Your task to perform on an android device: Search for sushi restaurants on Maps Image 0: 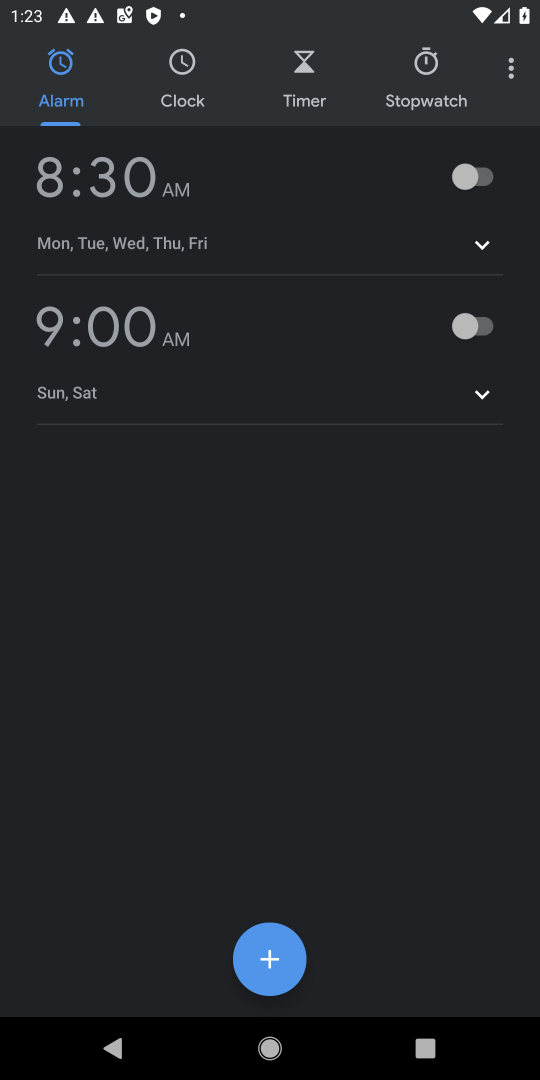
Step 0: press home button
Your task to perform on an android device: Search for sushi restaurants on Maps Image 1: 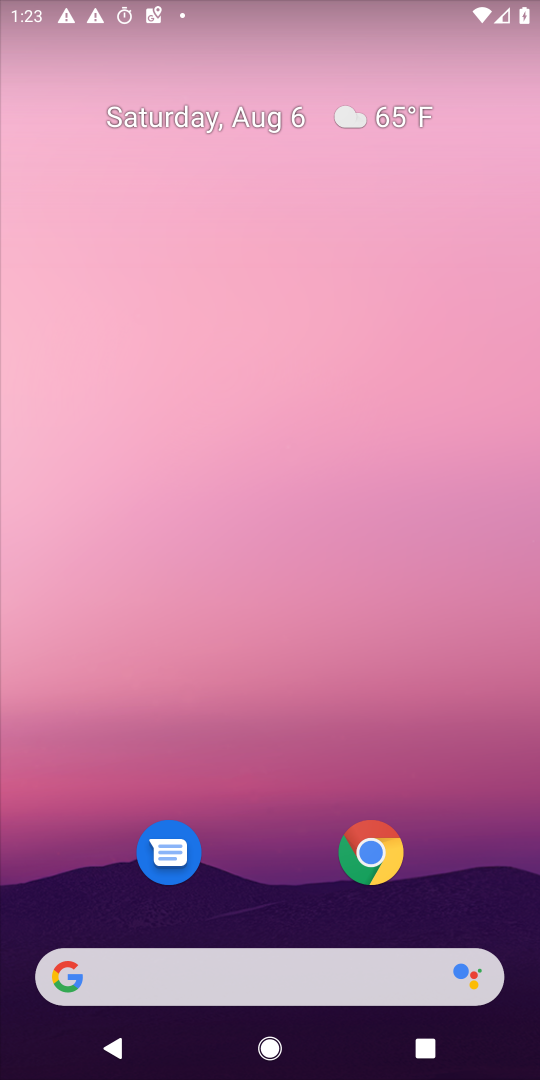
Step 1: drag from (337, 960) to (312, 235)
Your task to perform on an android device: Search for sushi restaurants on Maps Image 2: 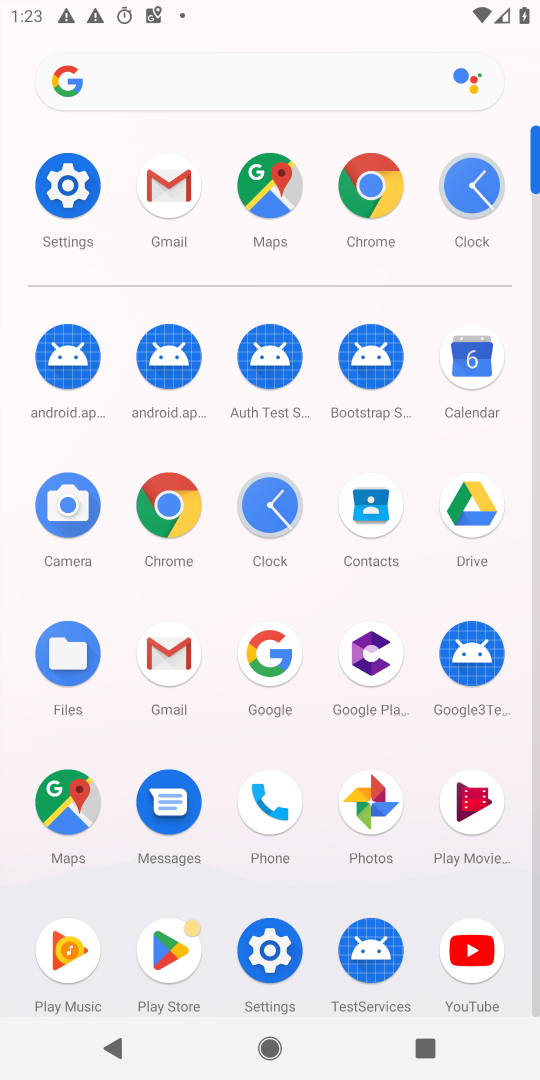
Step 2: click (283, 181)
Your task to perform on an android device: Search for sushi restaurants on Maps Image 3: 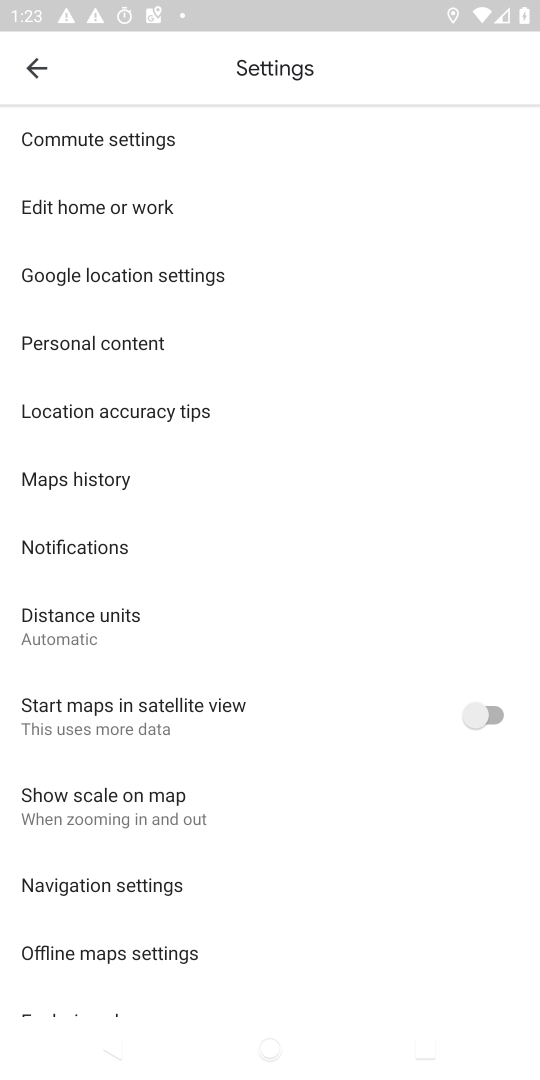
Step 3: click (33, 73)
Your task to perform on an android device: Search for sushi restaurants on Maps Image 4: 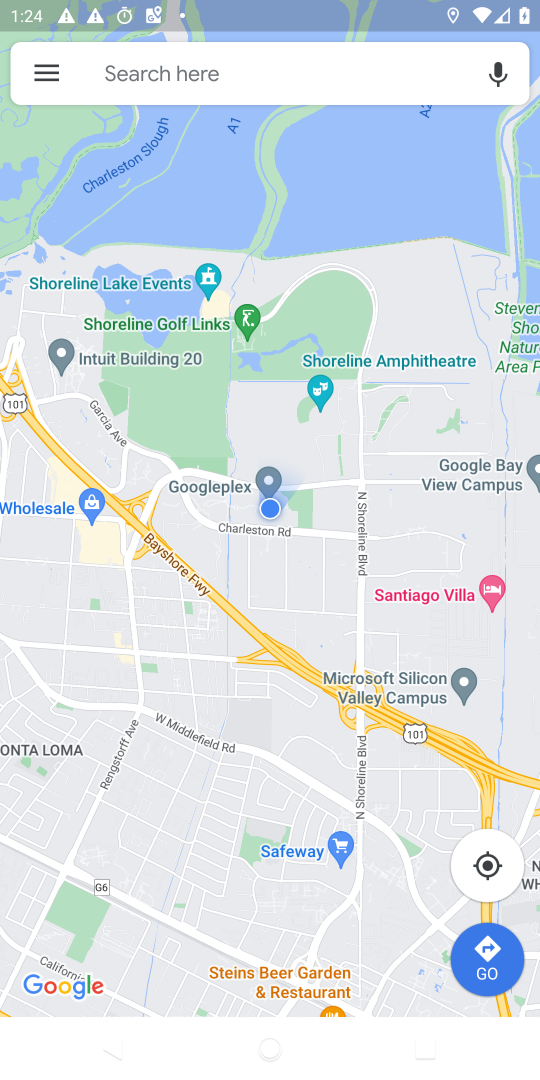
Step 4: click (135, 76)
Your task to perform on an android device: Search for sushi restaurants on Maps Image 5: 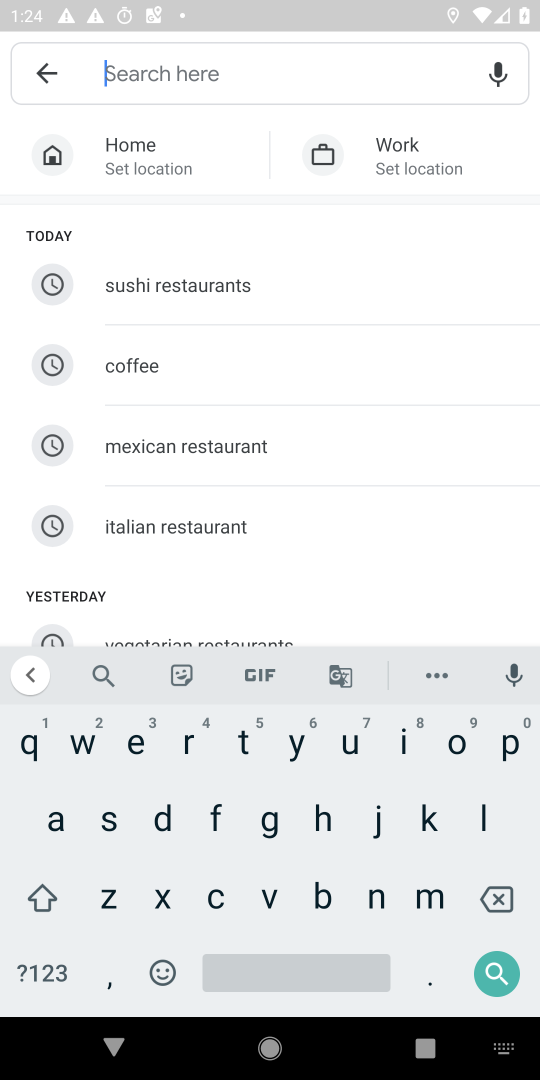
Step 5: click (170, 296)
Your task to perform on an android device: Search for sushi restaurants on Maps Image 6: 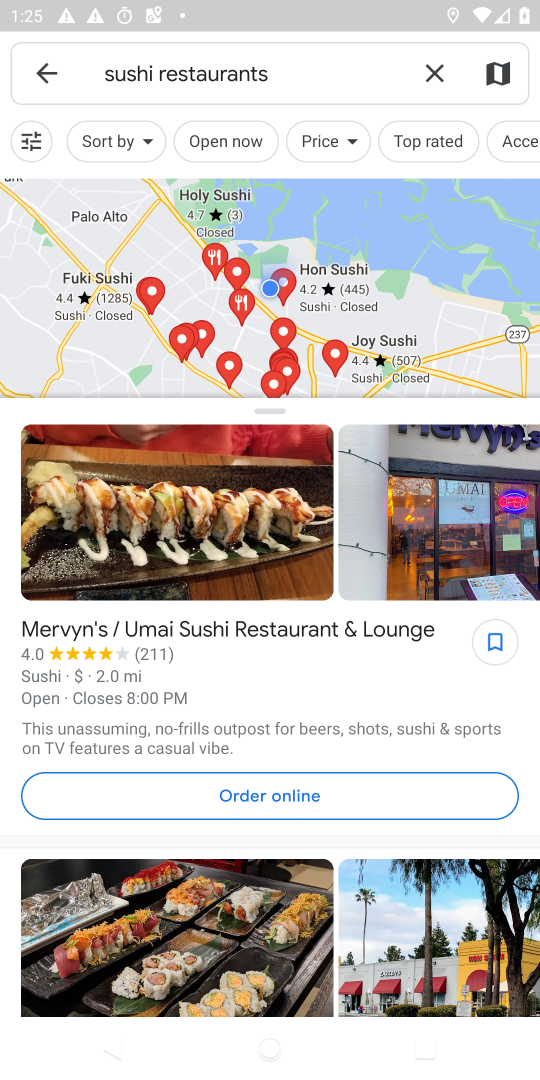
Step 6: task complete